Your task to perform on an android device: turn on notifications settings in the gmail app Image 0: 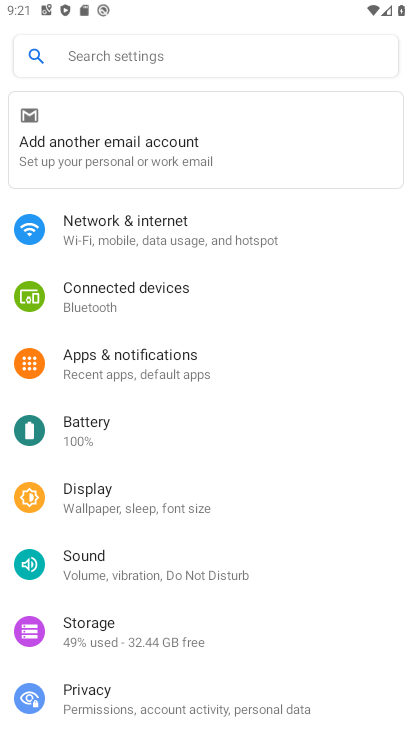
Step 0: press home button
Your task to perform on an android device: turn on notifications settings in the gmail app Image 1: 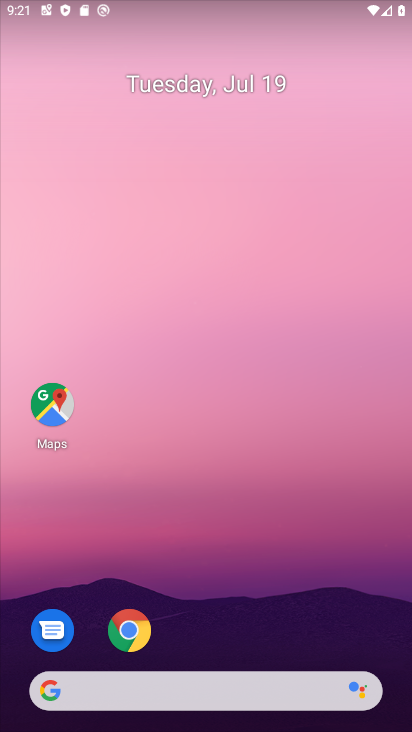
Step 1: drag from (225, 589) to (244, 95)
Your task to perform on an android device: turn on notifications settings in the gmail app Image 2: 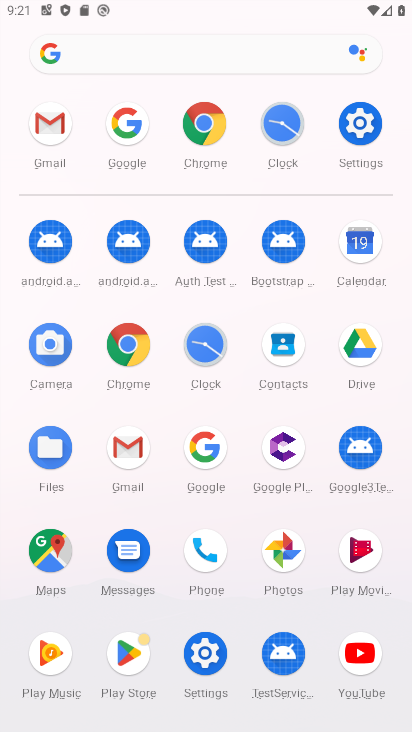
Step 2: click (32, 123)
Your task to perform on an android device: turn on notifications settings in the gmail app Image 3: 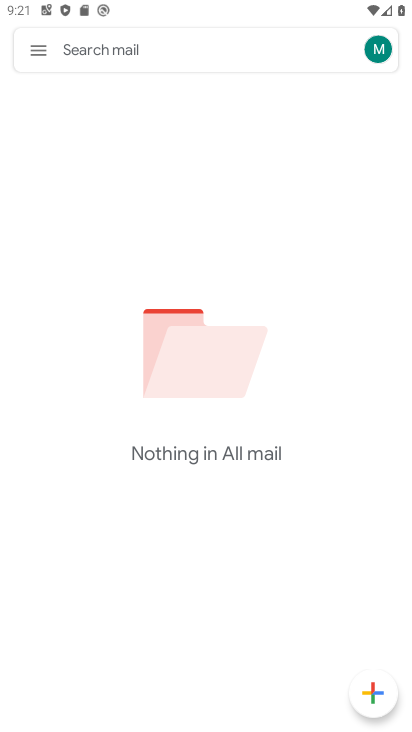
Step 3: click (40, 49)
Your task to perform on an android device: turn on notifications settings in the gmail app Image 4: 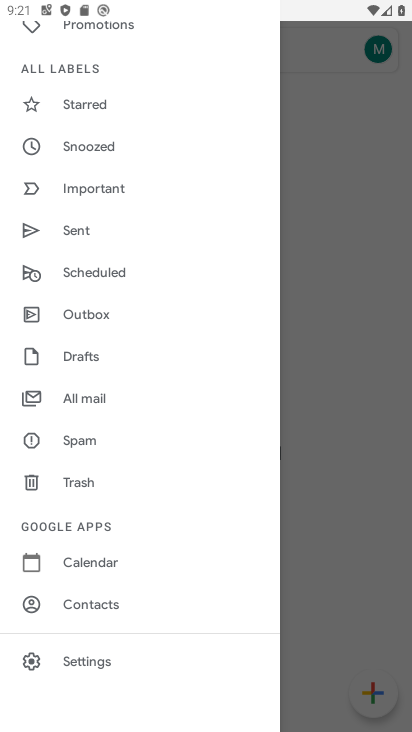
Step 4: click (107, 665)
Your task to perform on an android device: turn on notifications settings in the gmail app Image 5: 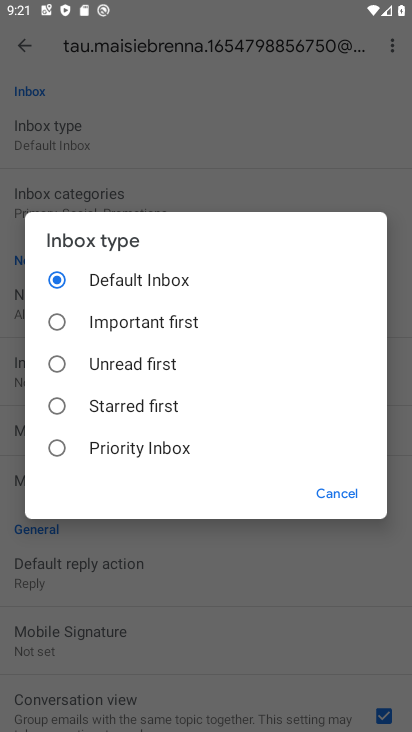
Step 5: click (344, 485)
Your task to perform on an android device: turn on notifications settings in the gmail app Image 6: 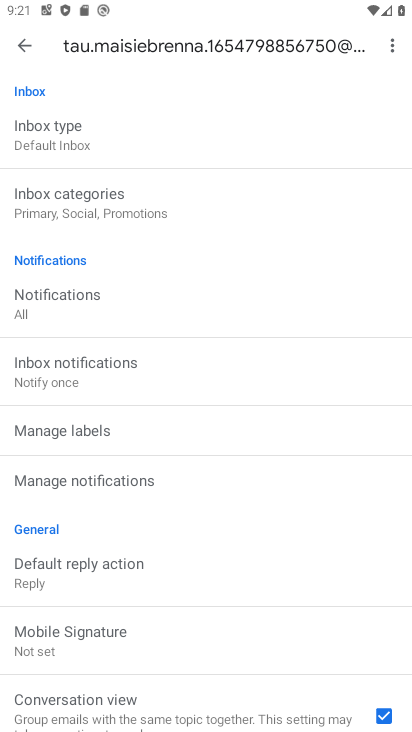
Step 6: click (48, 303)
Your task to perform on an android device: turn on notifications settings in the gmail app Image 7: 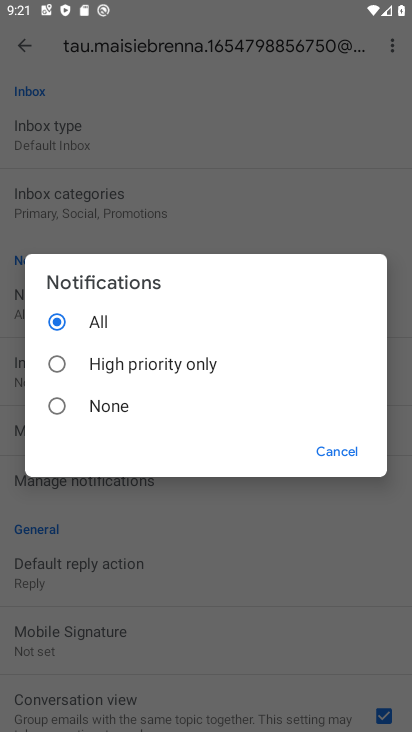
Step 7: task complete